Your task to perform on an android device: turn off notifications settings in the gmail app Image 0: 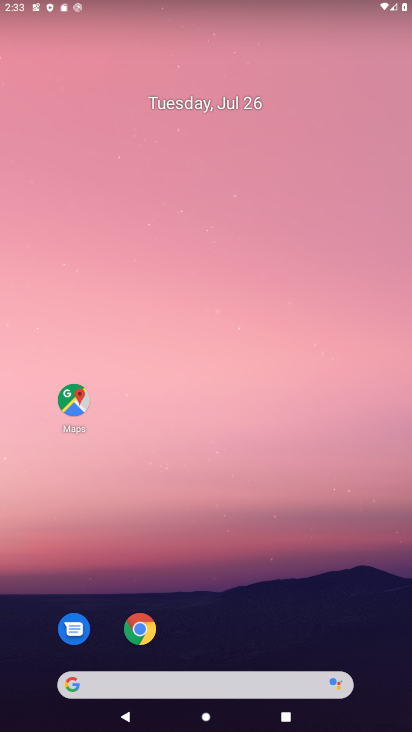
Step 0: drag from (255, 642) to (254, 179)
Your task to perform on an android device: turn off notifications settings in the gmail app Image 1: 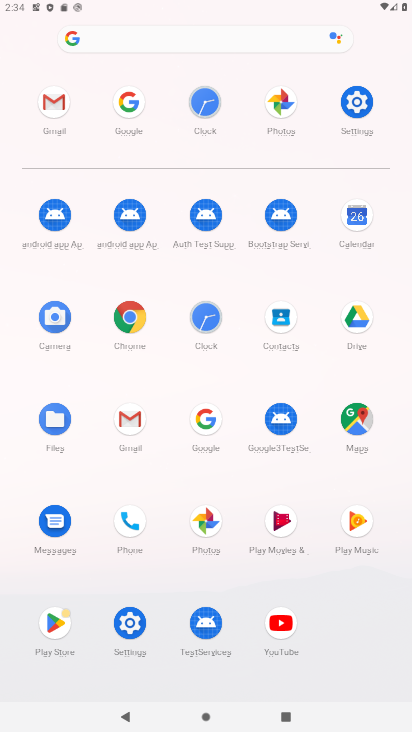
Step 1: click (45, 96)
Your task to perform on an android device: turn off notifications settings in the gmail app Image 2: 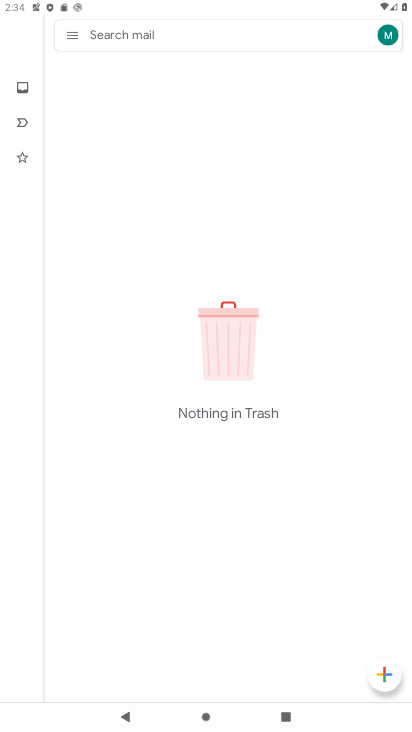
Step 2: click (78, 43)
Your task to perform on an android device: turn off notifications settings in the gmail app Image 3: 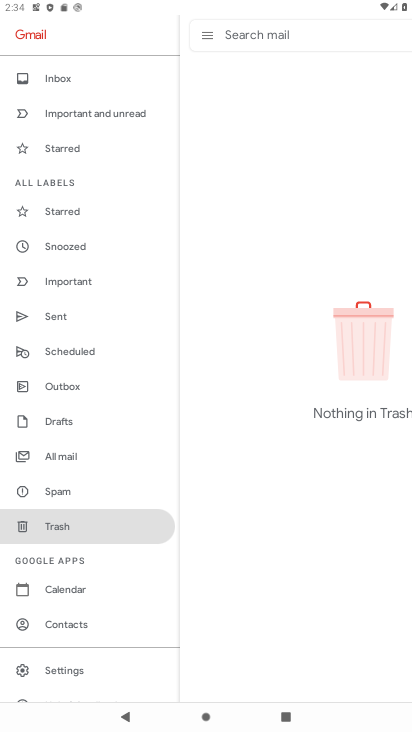
Step 3: click (82, 676)
Your task to perform on an android device: turn off notifications settings in the gmail app Image 4: 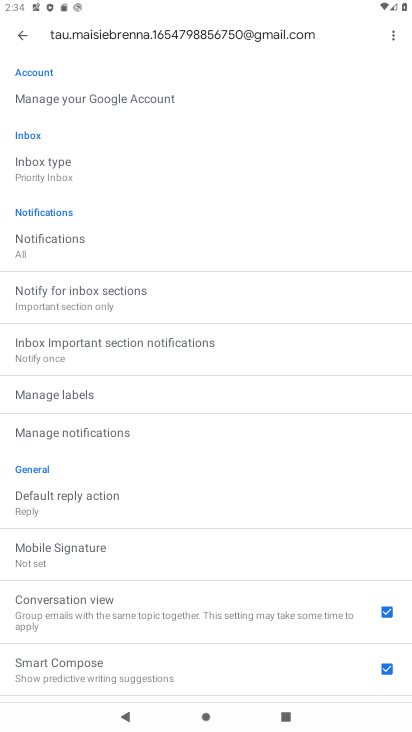
Step 4: click (154, 441)
Your task to perform on an android device: turn off notifications settings in the gmail app Image 5: 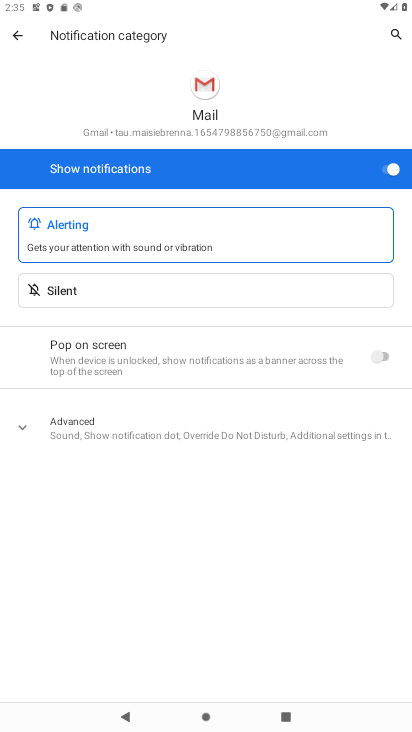
Step 5: click (391, 170)
Your task to perform on an android device: turn off notifications settings in the gmail app Image 6: 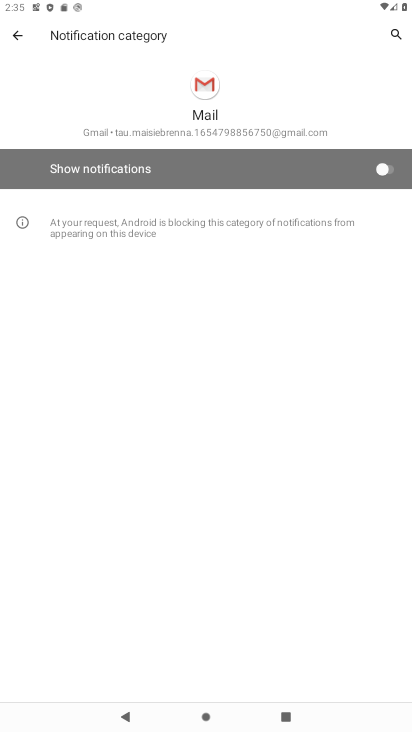
Step 6: task complete